Your task to perform on an android device: change alarm snooze length Image 0: 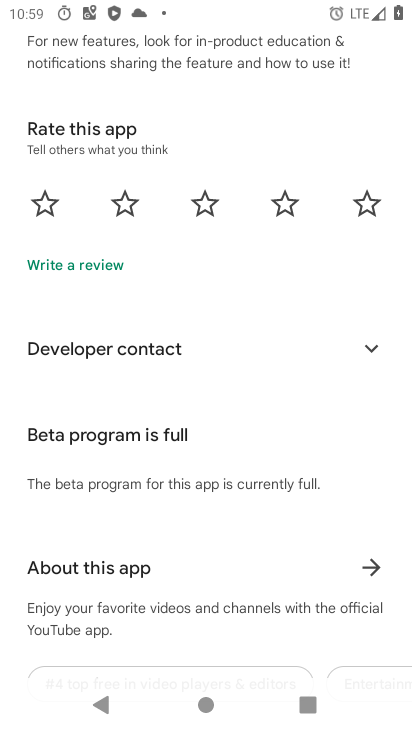
Step 0: press home button
Your task to perform on an android device: change alarm snooze length Image 1: 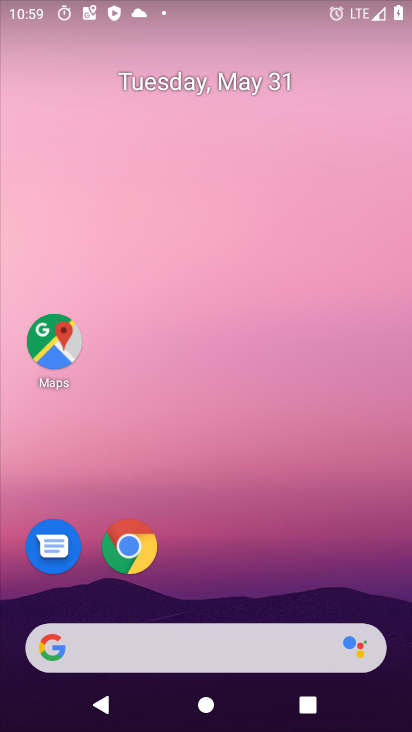
Step 1: drag from (271, 565) to (194, 247)
Your task to perform on an android device: change alarm snooze length Image 2: 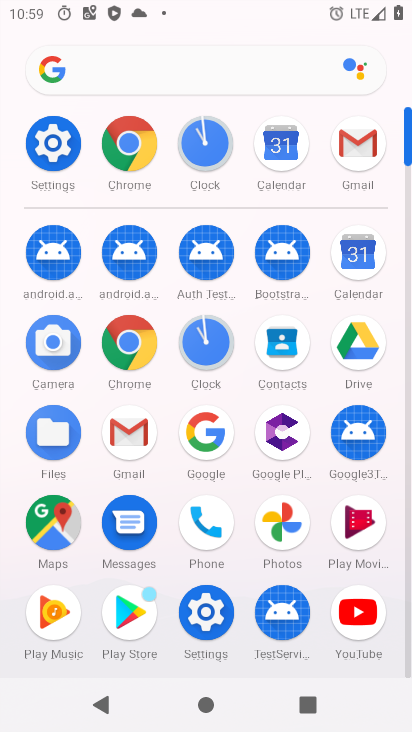
Step 2: click (210, 145)
Your task to perform on an android device: change alarm snooze length Image 3: 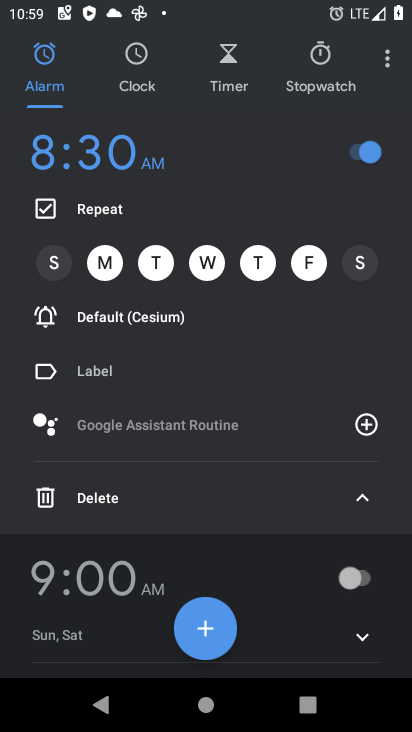
Step 3: click (388, 46)
Your task to perform on an android device: change alarm snooze length Image 4: 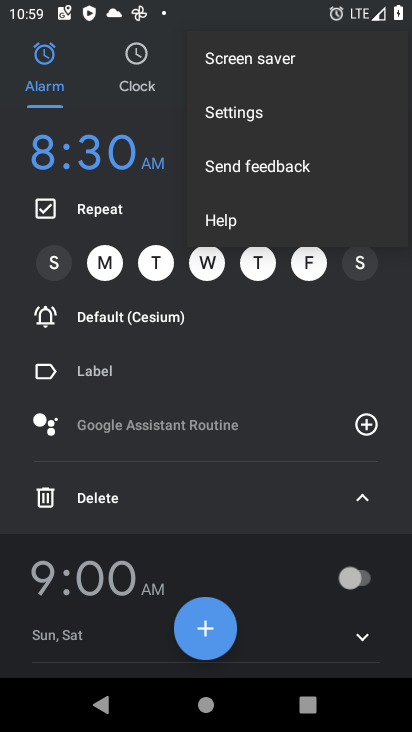
Step 4: click (303, 111)
Your task to perform on an android device: change alarm snooze length Image 5: 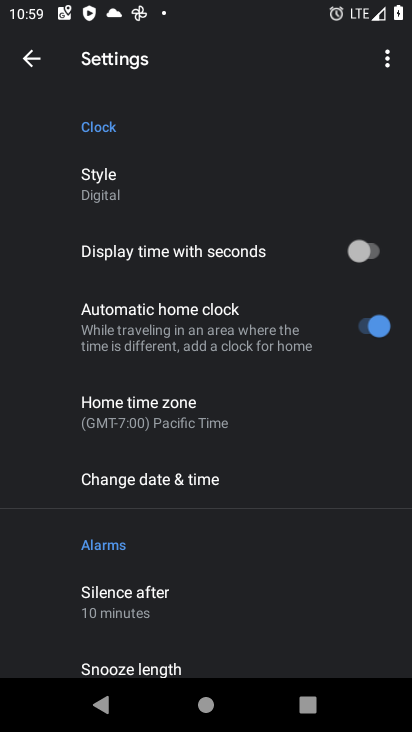
Step 5: drag from (173, 558) to (154, 180)
Your task to perform on an android device: change alarm snooze length Image 6: 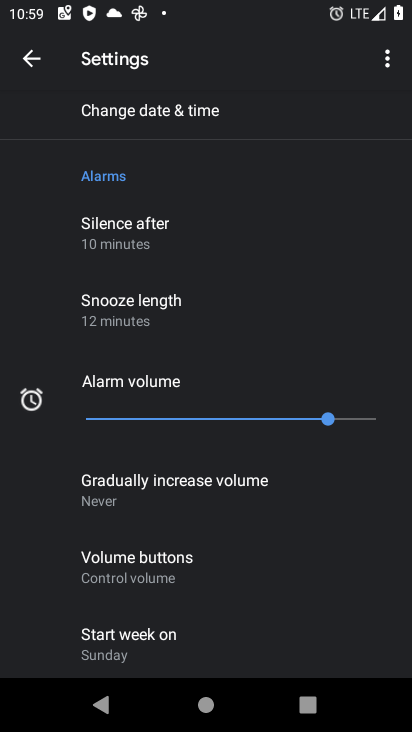
Step 6: click (148, 314)
Your task to perform on an android device: change alarm snooze length Image 7: 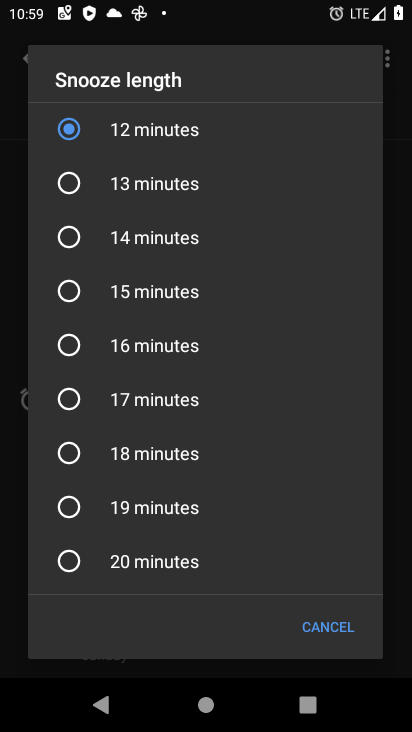
Step 7: click (66, 448)
Your task to perform on an android device: change alarm snooze length Image 8: 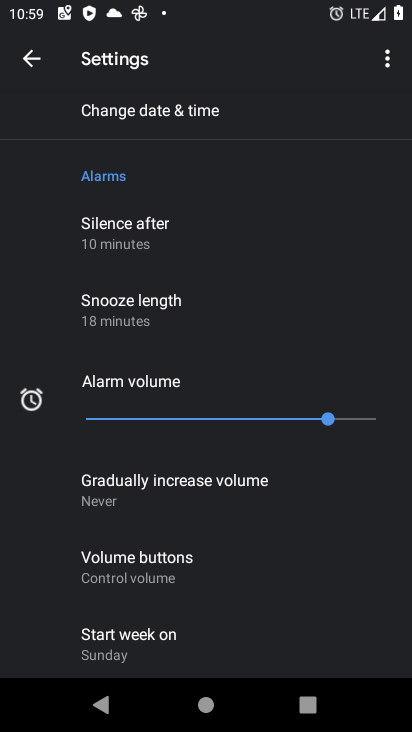
Step 8: task complete